Your task to perform on an android device: change the clock display to digital Image 0: 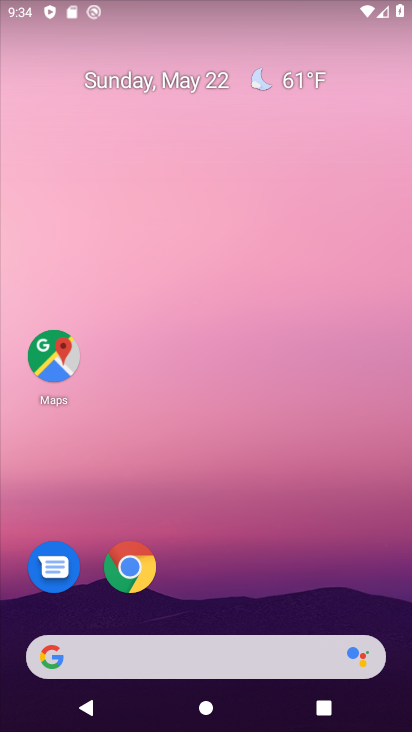
Step 0: drag from (249, 620) to (169, 9)
Your task to perform on an android device: change the clock display to digital Image 1: 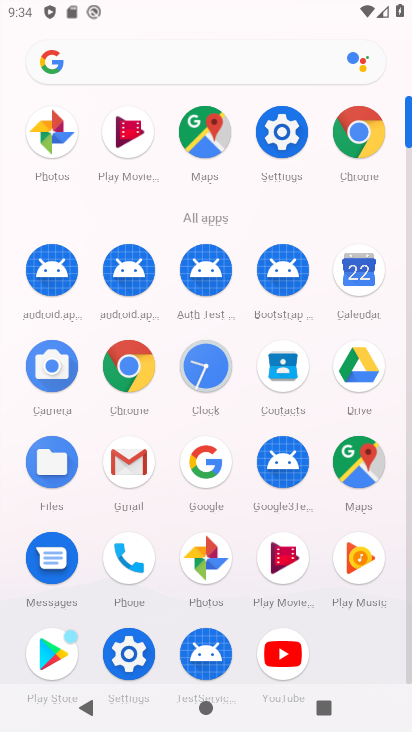
Step 1: click (217, 367)
Your task to perform on an android device: change the clock display to digital Image 2: 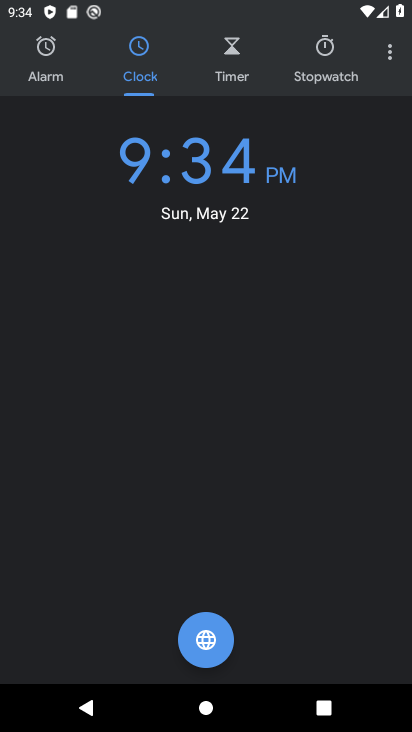
Step 2: click (391, 55)
Your task to perform on an android device: change the clock display to digital Image 3: 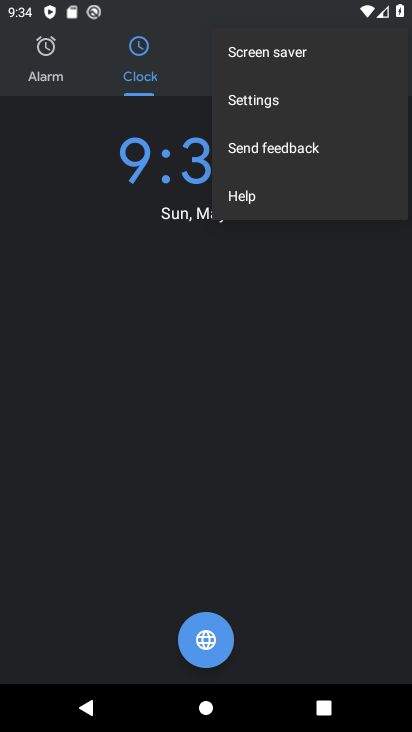
Step 3: click (246, 96)
Your task to perform on an android device: change the clock display to digital Image 4: 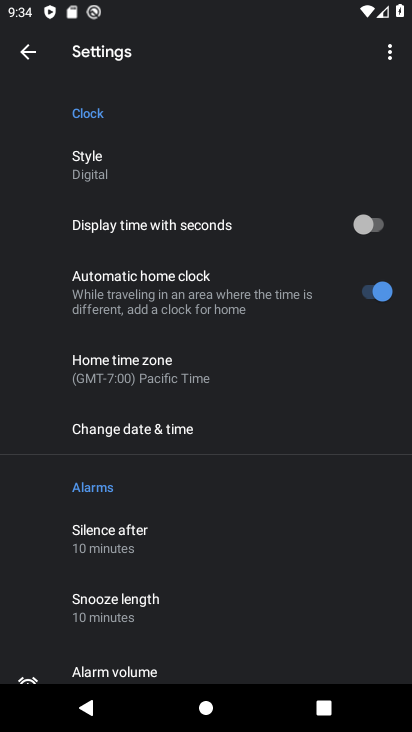
Step 4: click (114, 180)
Your task to perform on an android device: change the clock display to digital Image 5: 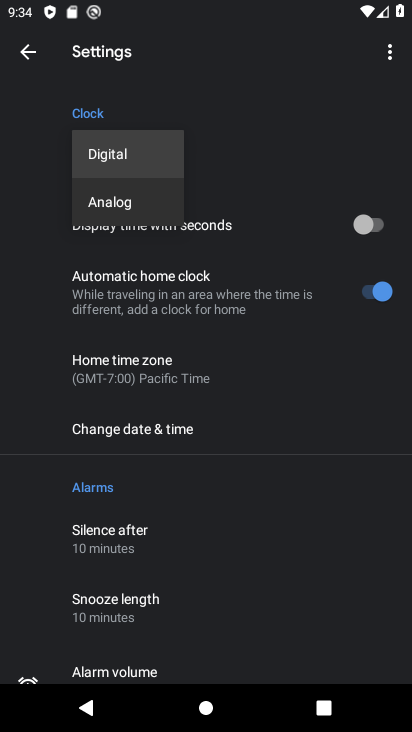
Step 5: task complete